Your task to perform on an android device: Search for sushi restaurants on Maps Image 0: 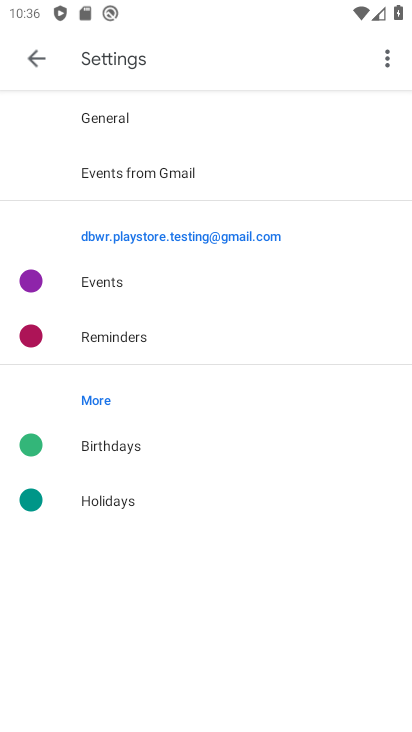
Step 0: press home button
Your task to perform on an android device: Search for sushi restaurants on Maps Image 1: 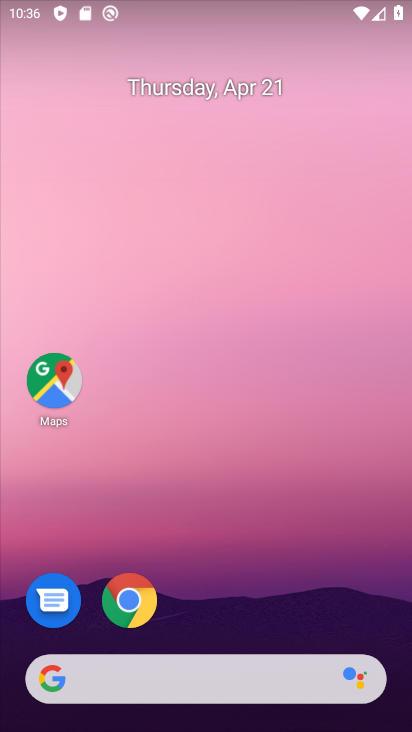
Step 1: click (65, 380)
Your task to perform on an android device: Search for sushi restaurants on Maps Image 2: 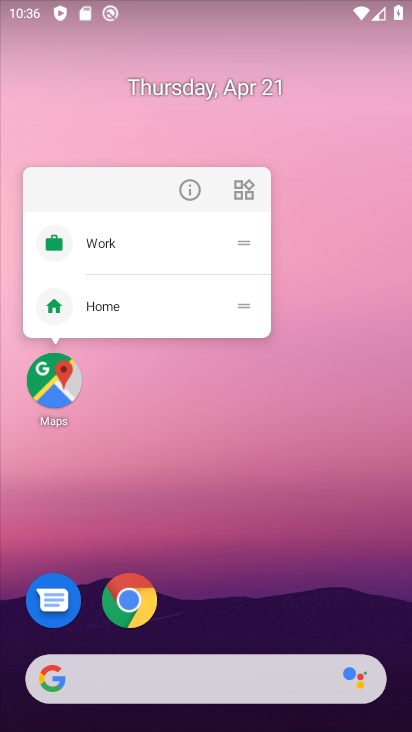
Step 2: click (65, 380)
Your task to perform on an android device: Search for sushi restaurants on Maps Image 3: 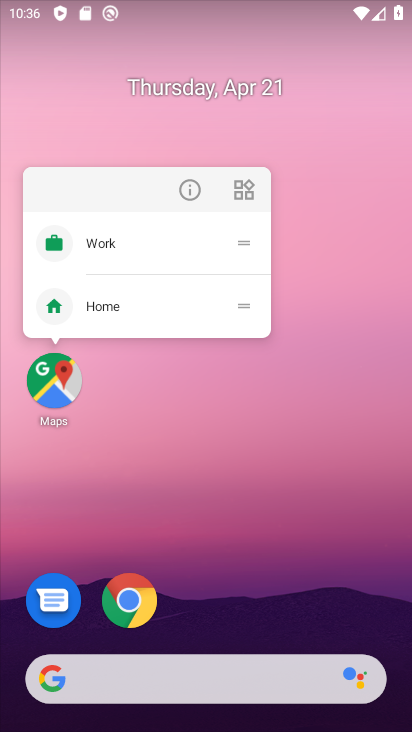
Step 3: click (65, 380)
Your task to perform on an android device: Search for sushi restaurants on Maps Image 4: 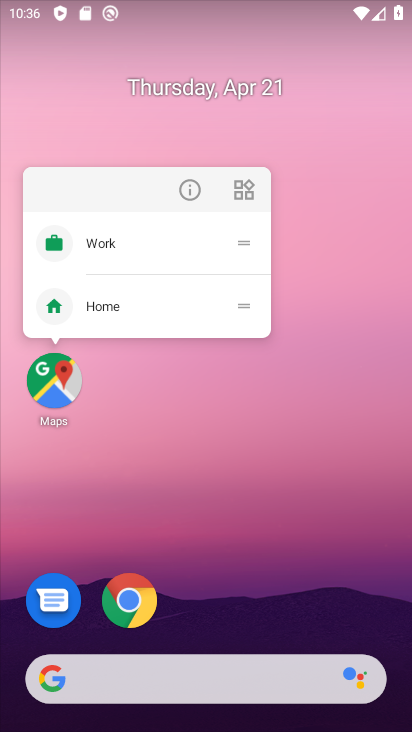
Step 4: click (65, 380)
Your task to perform on an android device: Search for sushi restaurants on Maps Image 5: 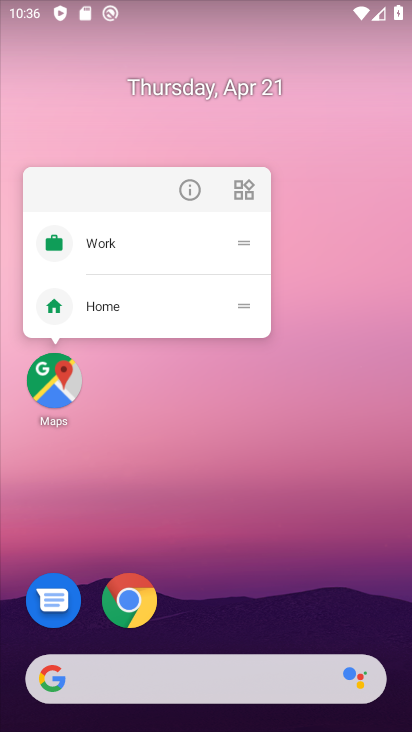
Step 5: click (65, 380)
Your task to perform on an android device: Search for sushi restaurants on Maps Image 6: 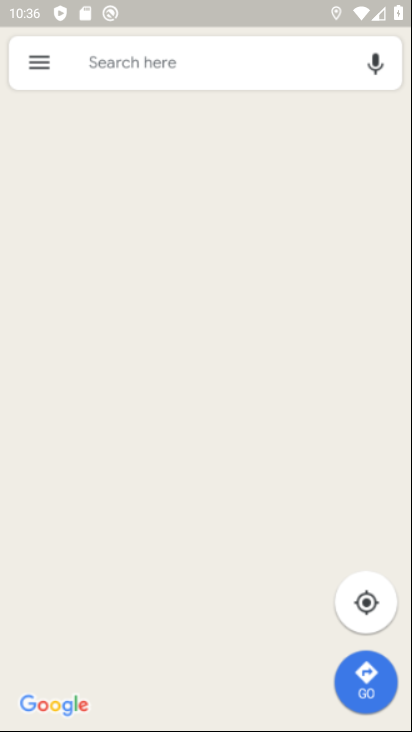
Step 6: click (65, 380)
Your task to perform on an android device: Search for sushi restaurants on Maps Image 7: 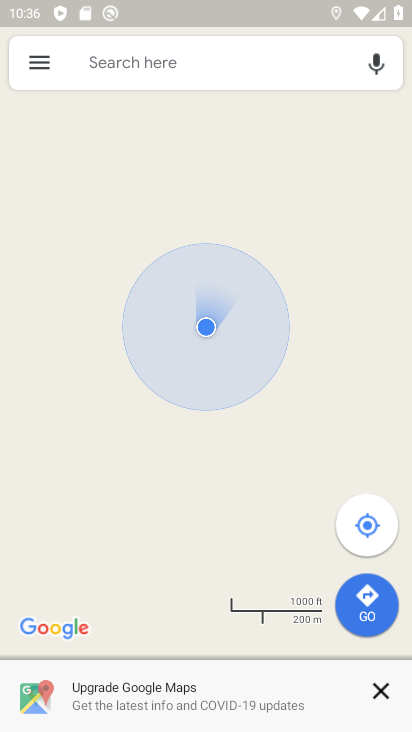
Step 7: click (241, 76)
Your task to perform on an android device: Search for sushi restaurants on Maps Image 8: 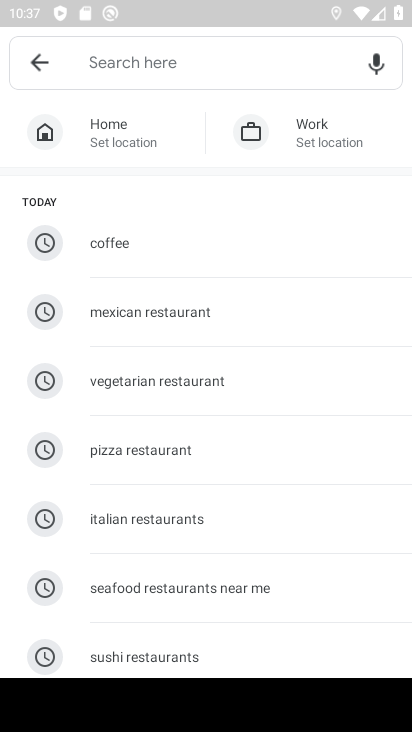
Step 8: type "sushi"
Your task to perform on an android device: Search for sushi restaurants on Maps Image 9: 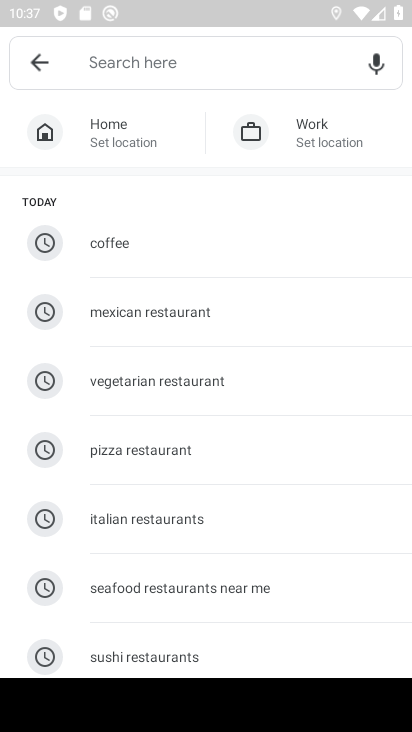
Step 9: click (325, 223)
Your task to perform on an android device: Search for sushi restaurants on Maps Image 10: 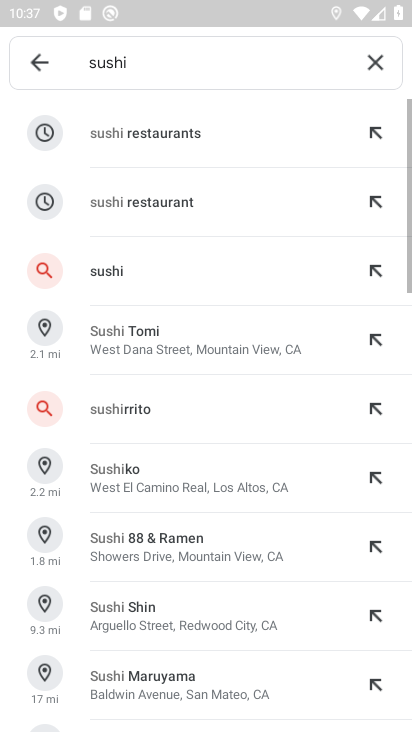
Step 10: click (160, 138)
Your task to perform on an android device: Search for sushi restaurants on Maps Image 11: 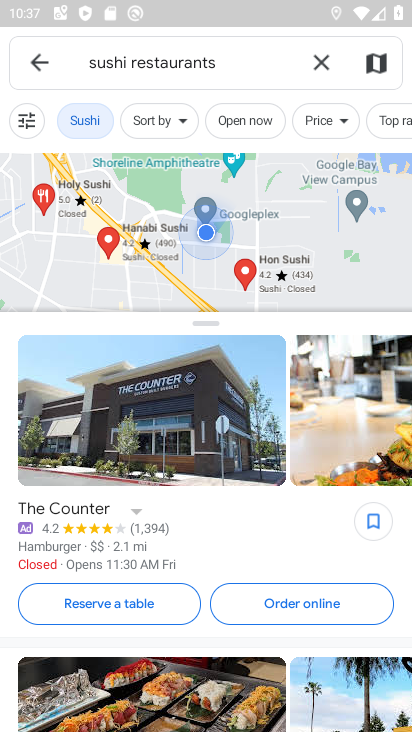
Step 11: task complete